Your task to perform on an android device: find which apps use the phone's location Image 0: 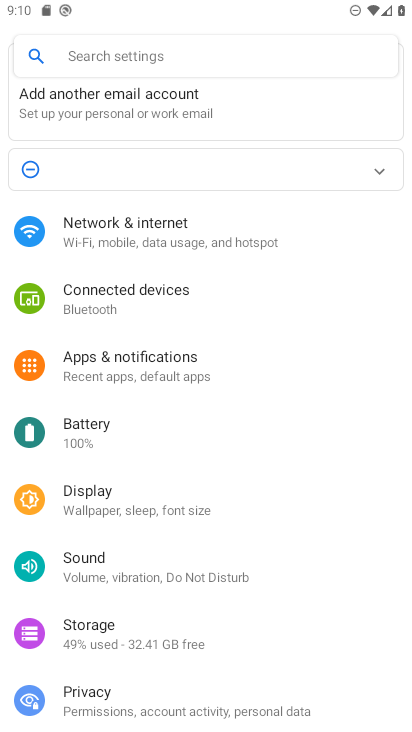
Step 0: press home button
Your task to perform on an android device: find which apps use the phone's location Image 1: 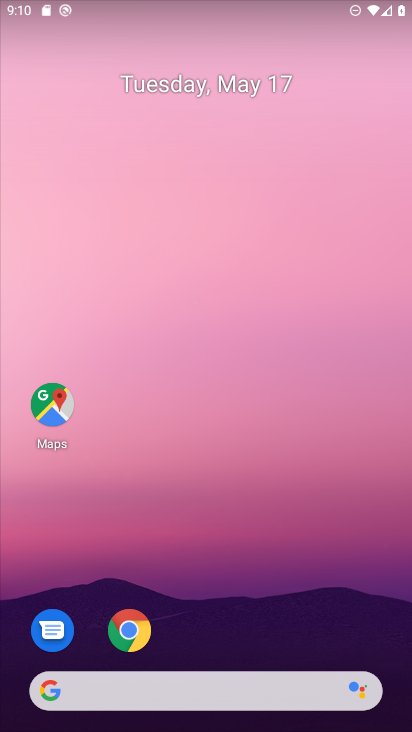
Step 1: drag from (337, 608) to (329, 136)
Your task to perform on an android device: find which apps use the phone's location Image 2: 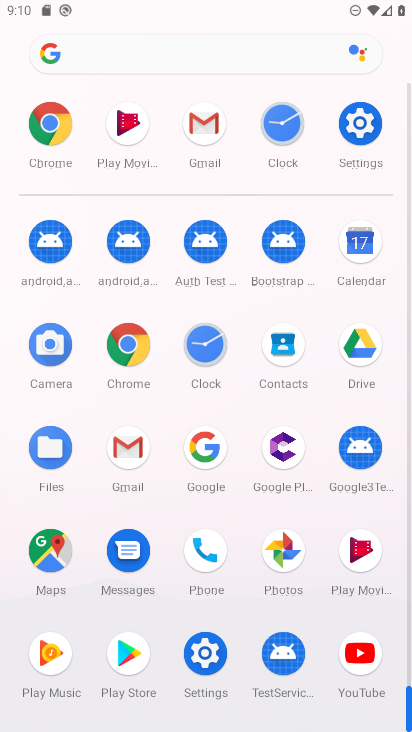
Step 2: click (373, 121)
Your task to perform on an android device: find which apps use the phone's location Image 3: 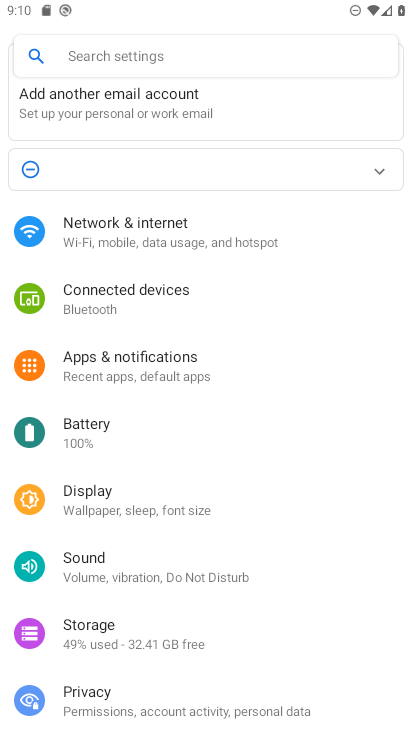
Step 3: drag from (338, 595) to (346, 412)
Your task to perform on an android device: find which apps use the phone's location Image 4: 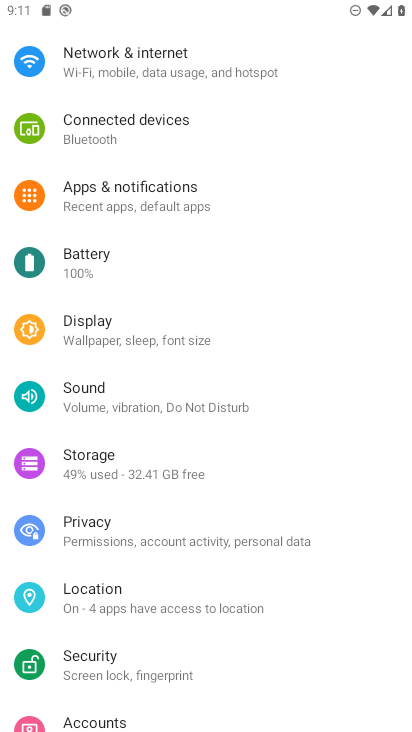
Step 4: drag from (333, 620) to (345, 458)
Your task to perform on an android device: find which apps use the phone's location Image 5: 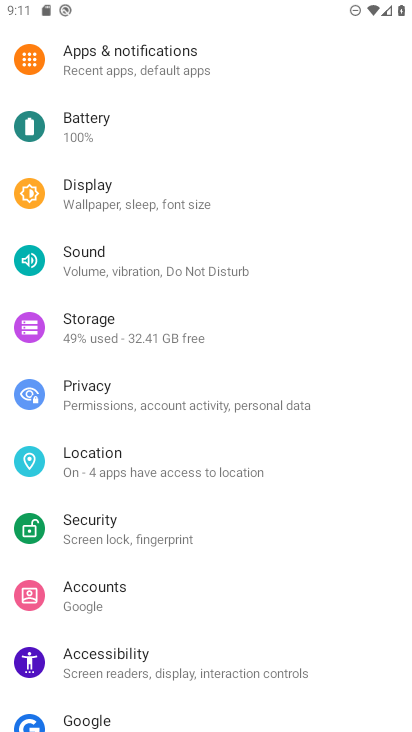
Step 5: drag from (337, 622) to (338, 471)
Your task to perform on an android device: find which apps use the phone's location Image 6: 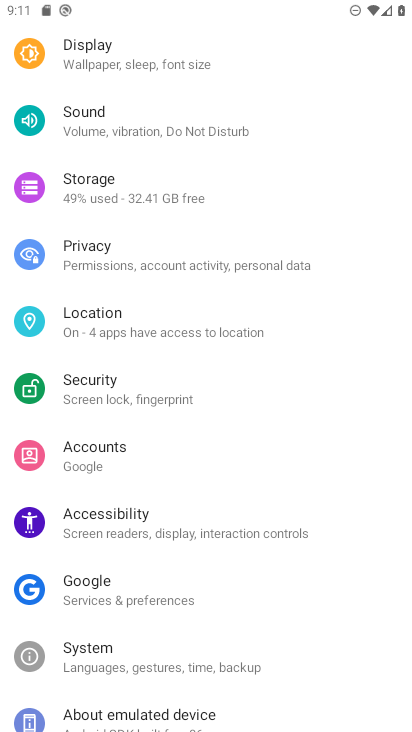
Step 6: drag from (342, 646) to (333, 519)
Your task to perform on an android device: find which apps use the phone's location Image 7: 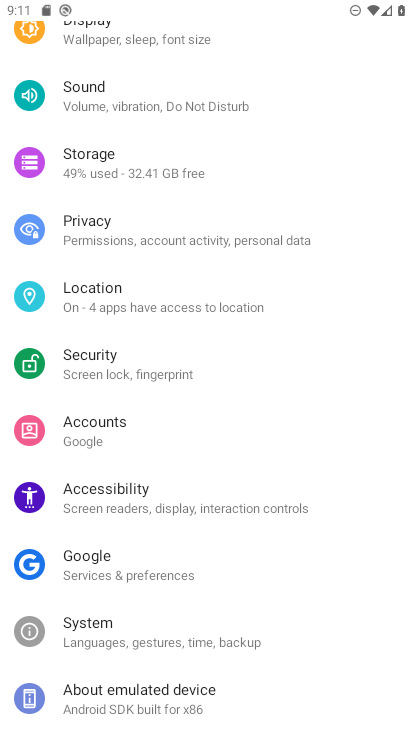
Step 7: drag from (333, 353) to (341, 465)
Your task to perform on an android device: find which apps use the phone's location Image 8: 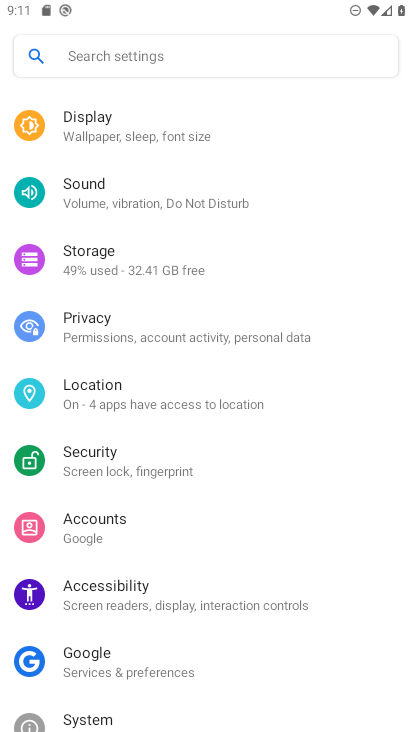
Step 8: drag from (350, 277) to (336, 423)
Your task to perform on an android device: find which apps use the phone's location Image 9: 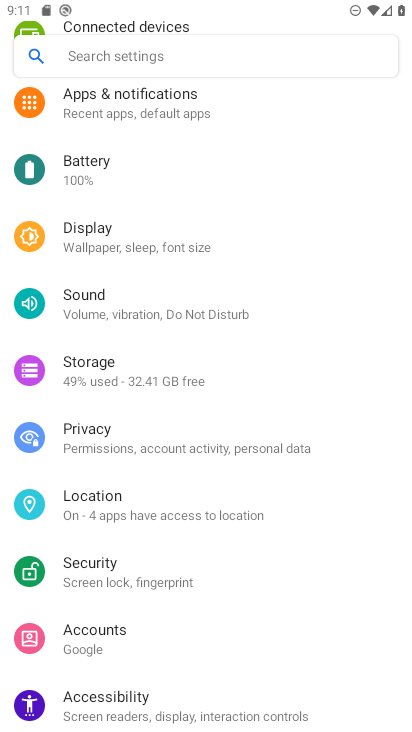
Step 9: drag from (329, 282) to (322, 352)
Your task to perform on an android device: find which apps use the phone's location Image 10: 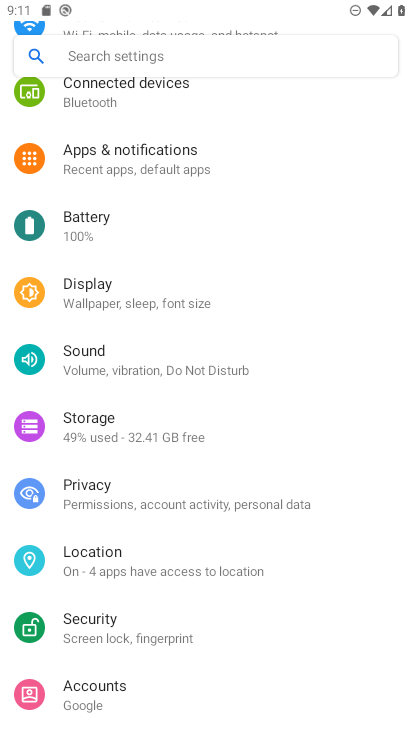
Step 10: click (242, 573)
Your task to perform on an android device: find which apps use the phone's location Image 11: 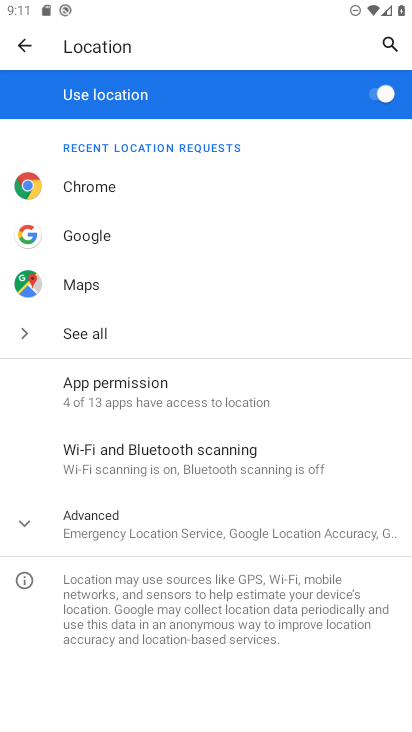
Step 11: click (158, 390)
Your task to perform on an android device: find which apps use the phone's location Image 12: 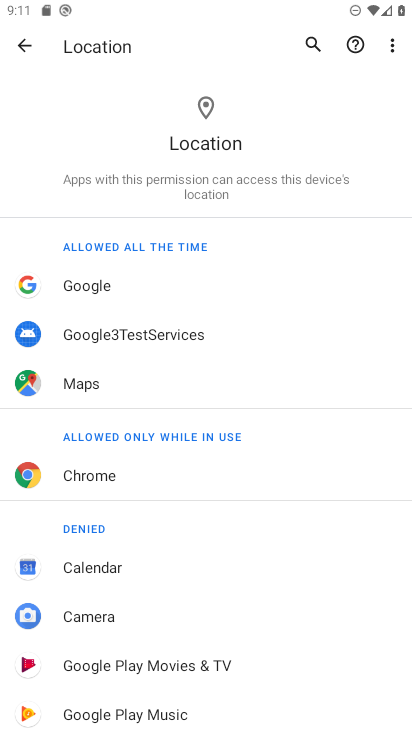
Step 12: drag from (256, 575) to (270, 453)
Your task to perform on an android device: find which apps use the phone's location Image 13: 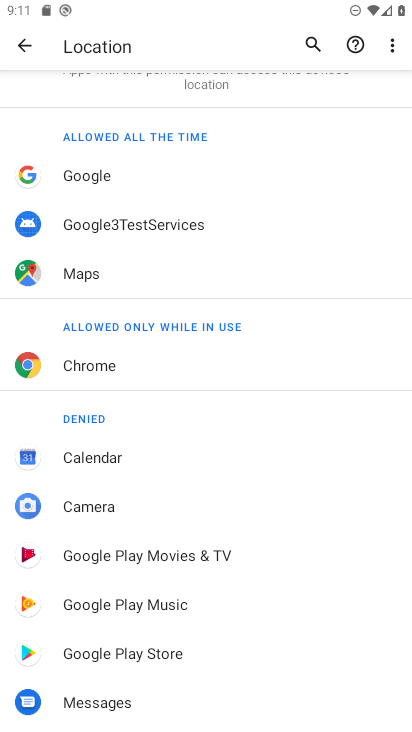
Step 13: drag from (316, 655) to (321, 490)
Your task to perform on an android device: find which apps use the phone's location Image 14: 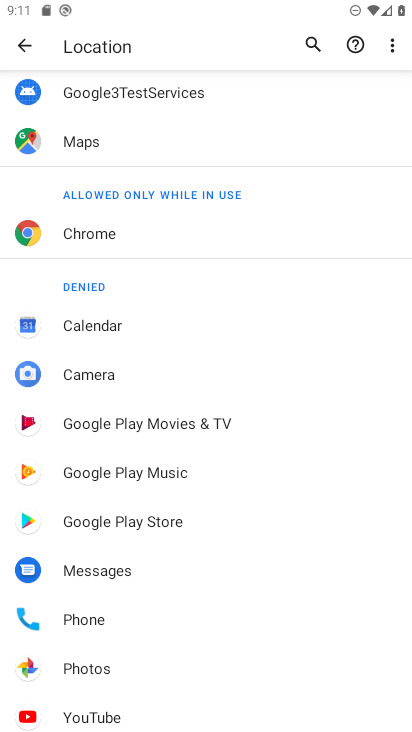
Step 14: drag from (301, 618) to (315, 449)
Your task to perform on an android device: find which apps use the phone's location Image 15: 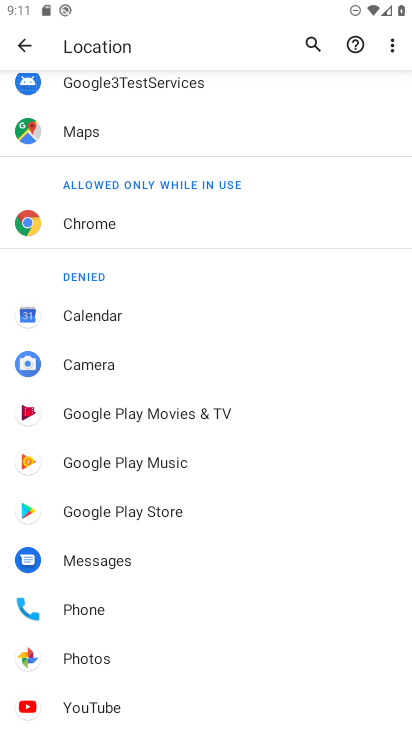
Step 15: click (89, 655)
Your task to perform on an android device: find which apps use the phone's location Image 16: 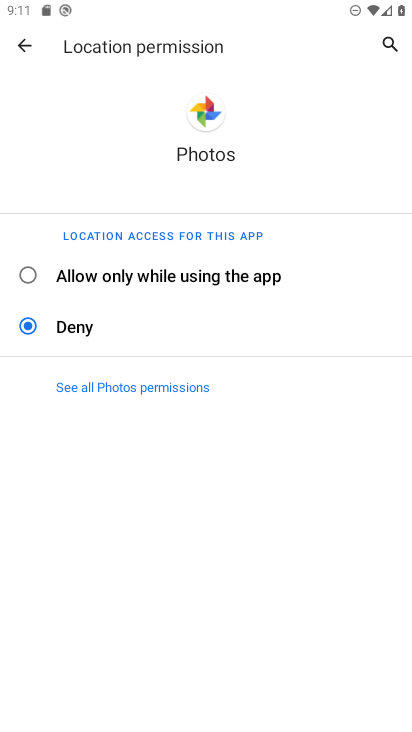
Step 16: click (28, 276)
Your task to perform on an android device: find which apps use the phone's location Image 17: 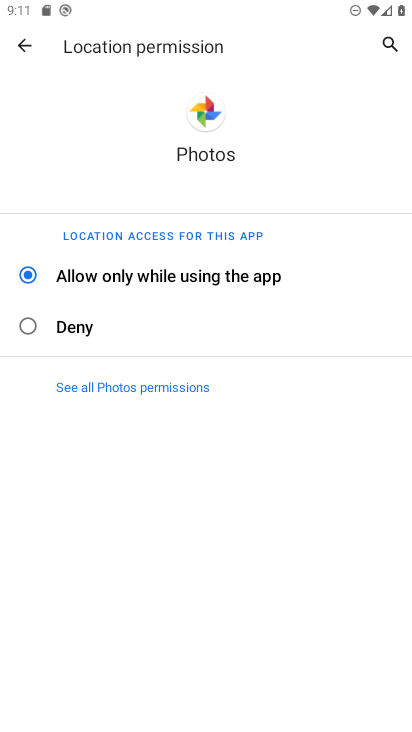
Step 17: task complete